Your task to perform on an android device: clear all cookies in the chrome app Image 0: 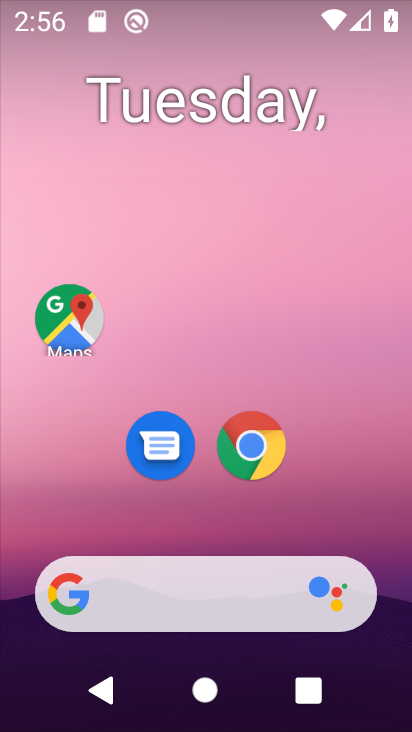
Step 0: click (252, 452)
Your task to perform on an android device: clear all cookies in the chrome app Image 1: 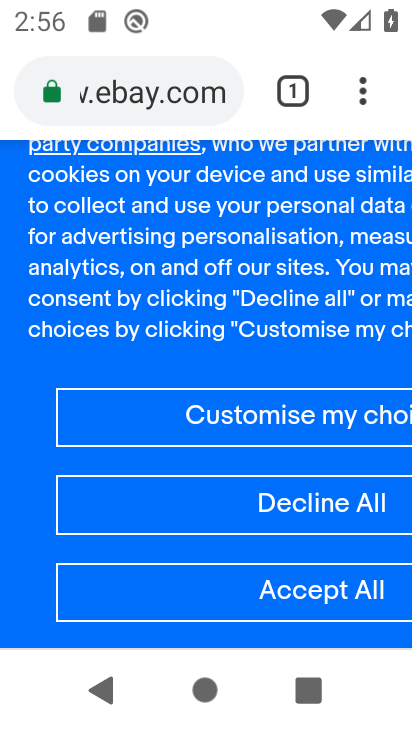
Step 1: click (364, 90)
Your task to perform on an android device: clear all cookies in the chrome app Image 2: 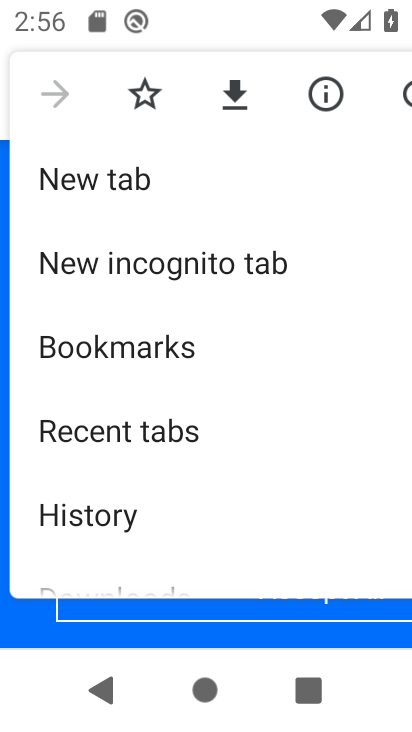
Step 2: drag from (189, 495) to (225, 189)
Your task to perform on an android device: clear all cookies in the chrome app Image 3: 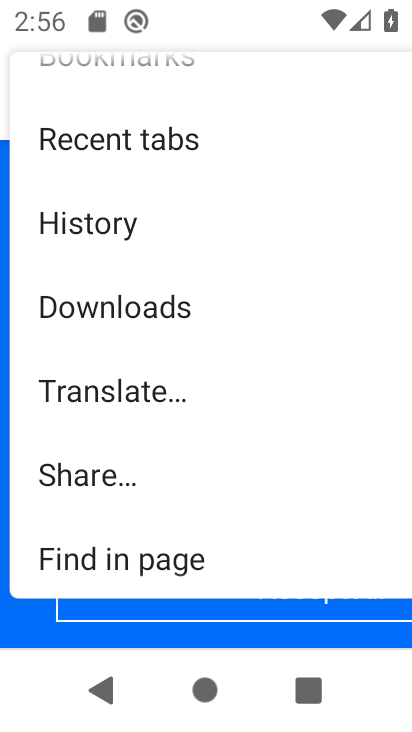
Step 3: drag from (249, 467) to (248, 139)
Your task to perform on an android device: clear all cookies in the chrome app Image 4: 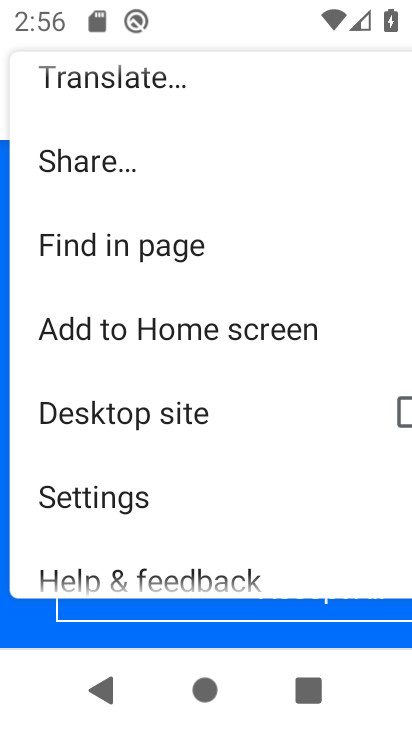
Step 4: drag from (192, 499) to (224, 247)
Your task to perform on an android device: clear all cookies in the chrome app Image 5: 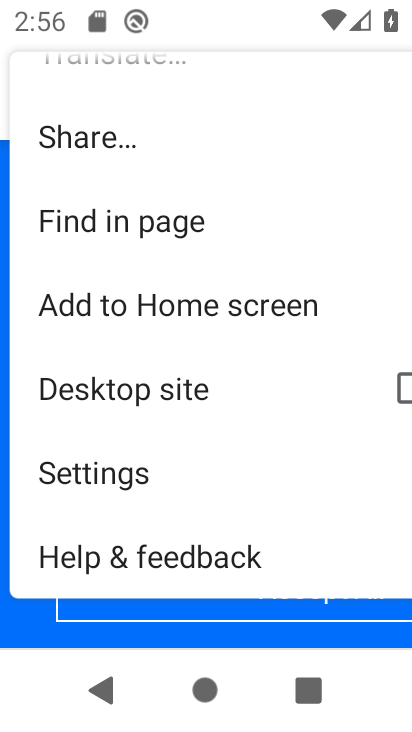
Step 5: click (85, 475)
Your task to perform on an android device: clear all cookies in the chrome app Image 6: 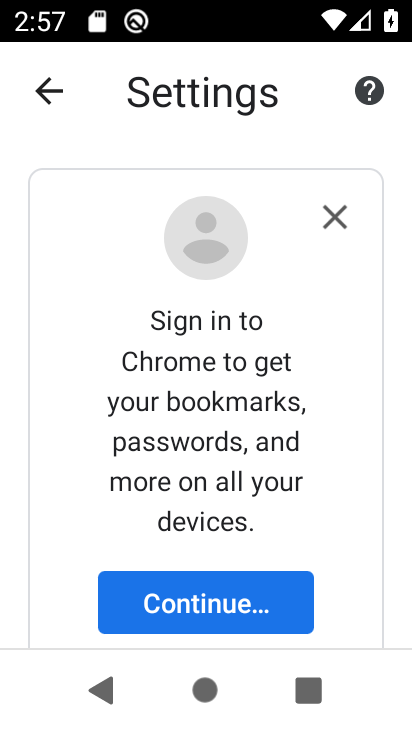
Step 6: drag from (263, 510) to (276, 116)
Your task to perform on an android device: clear all cookies in the chrome app Image 7: 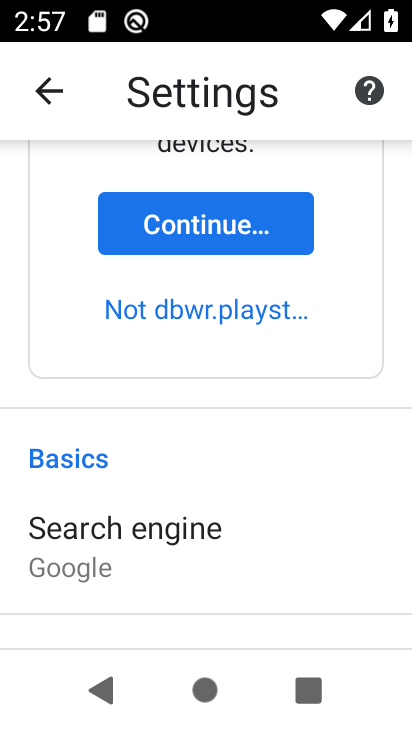
Step 7: drag from (180, 538) to (207, 120)
Your task to perform on an android device: clear all cookies in the chrome app Image 8: 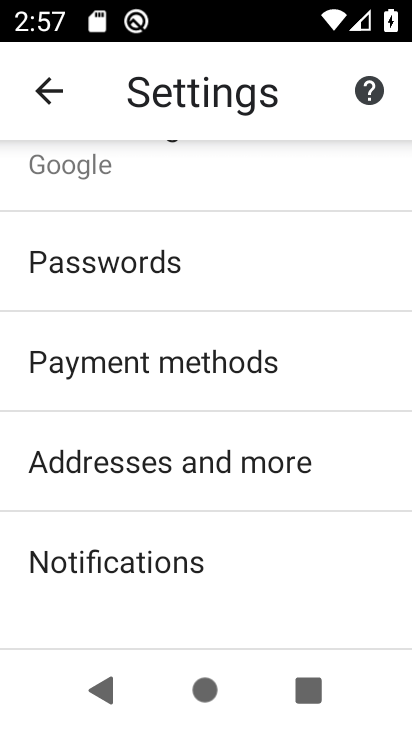
Step 8: drag from (141, 529) to (172, 115)
Your task to perform on an android device: clear all cookies in the chrome app Image 9: 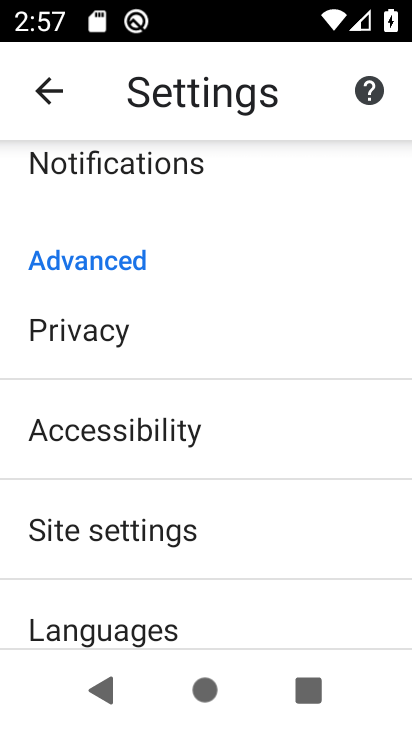
Step 9: click (88, 329)
Your task to perform on an android device: clear all cookies in the chrome app Image 10: 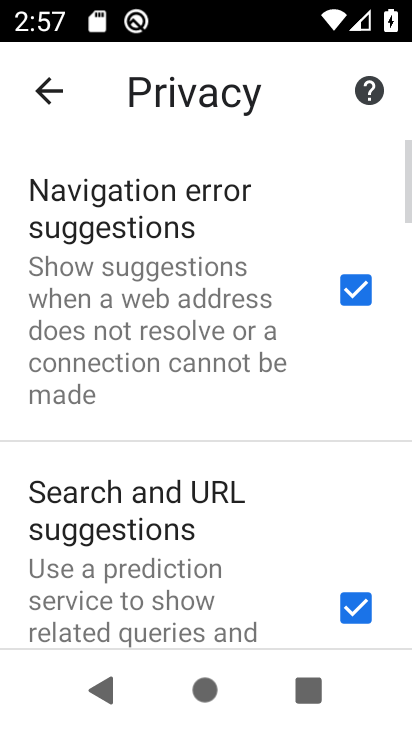
Step 10: drag from (128, 547) to (155, 141)
Your task to perform on an android device: clear all cookies in the chrome app Image 11: 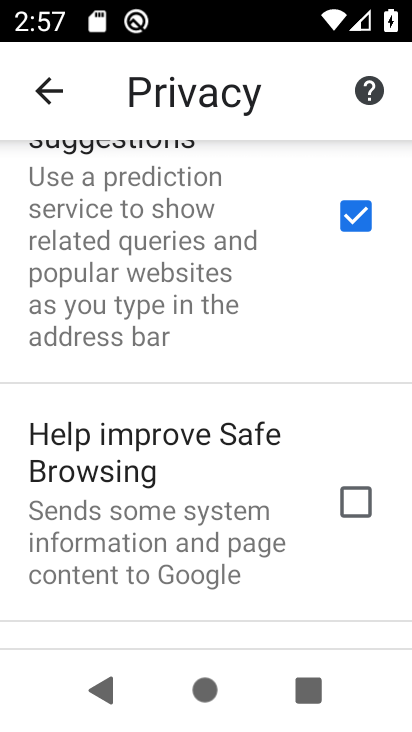
Step 11: drag from (126, 522) to (143, 130)
Your task to perform on an android device: clear all cookies in the chrome app Image 12: 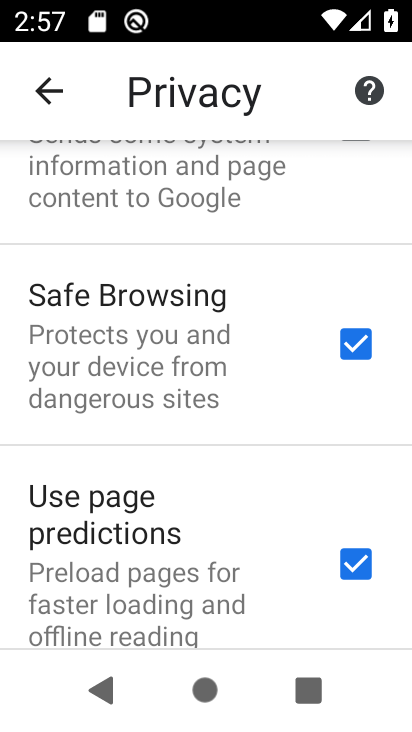
Step 12: drag from (135, 461) to (136, 112)
Your task to perform on an android device: clear all cookies in the chrome app Image 13: 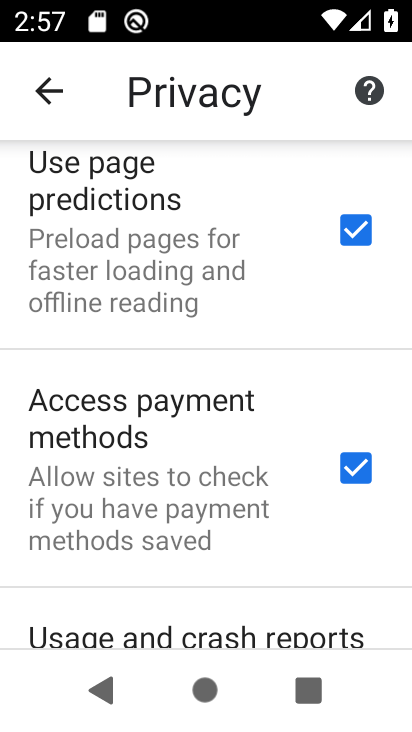
Step 13: drag from (120, 355) to (122, 146)
Your task to perform on an android device: clear all cookies in the chrome app Image 14: 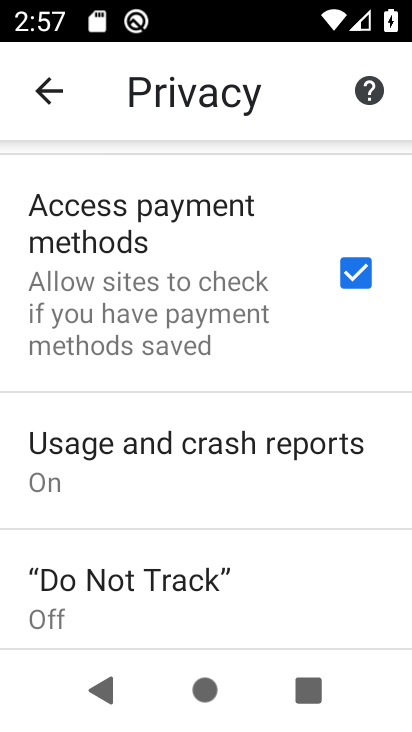
Step 14: drag from (126, 505) to (134, 181)
Your task to perform on an android device: clear all cookies in the chrome app Image 15: 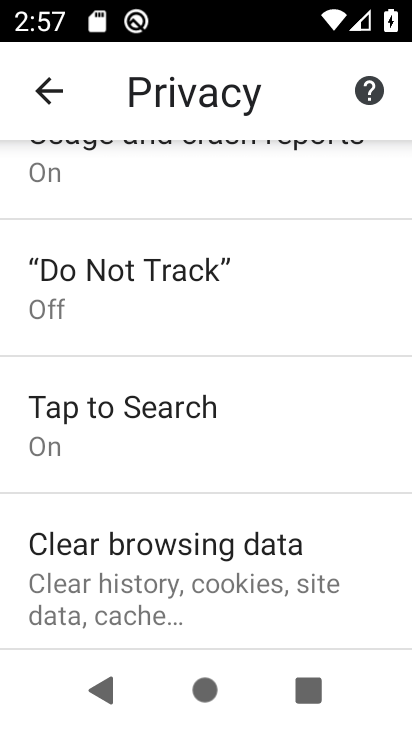
Step 15: click (123, 579)
Your task to perform on an android device: clear all cookies in the chrome app Image 16: 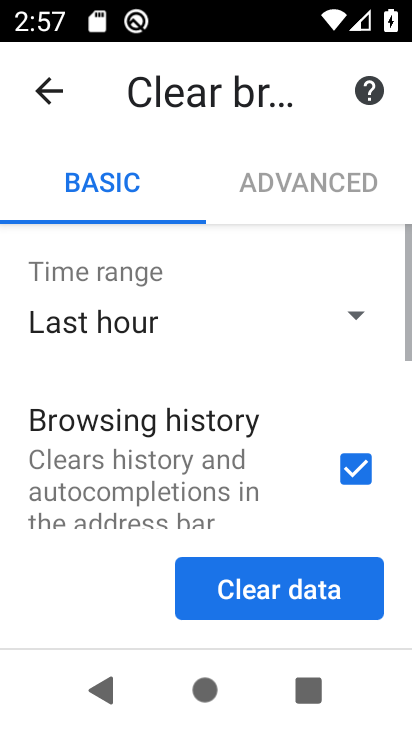
Step 16: drag from (190, 367) to (203, 135)
Your task to perform on an android device: clear all cookies in the chrome app Image 17: 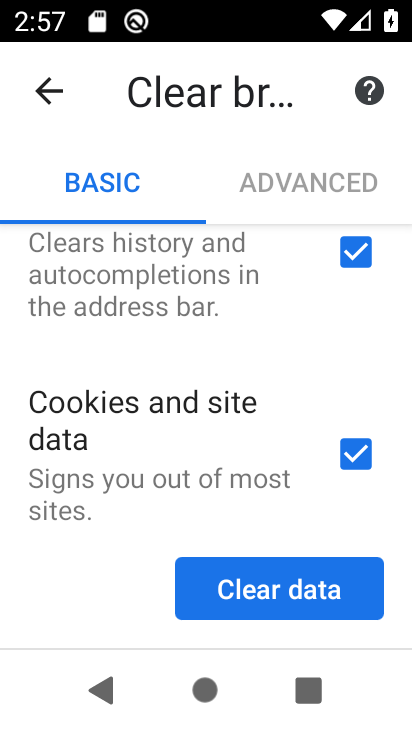
Step 17: click (361, 248)
Your task to perform on an android device: clear all cookies in the chrome app Image 18: 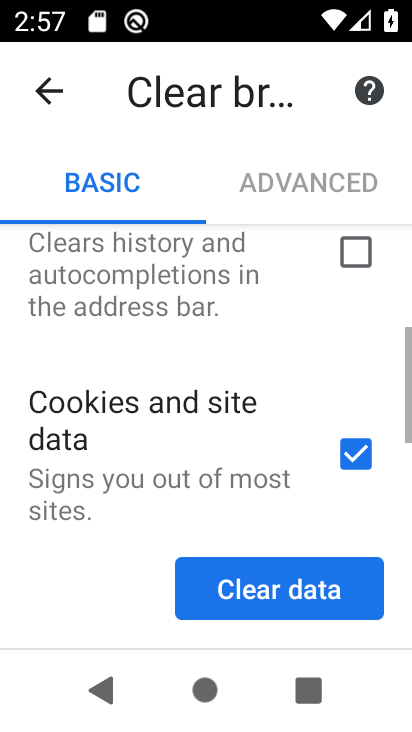
Step 18: drag from (46, 472) to (88, 181)
Your task to perform on an android device: clear all cookies in the chrome app Image 19: 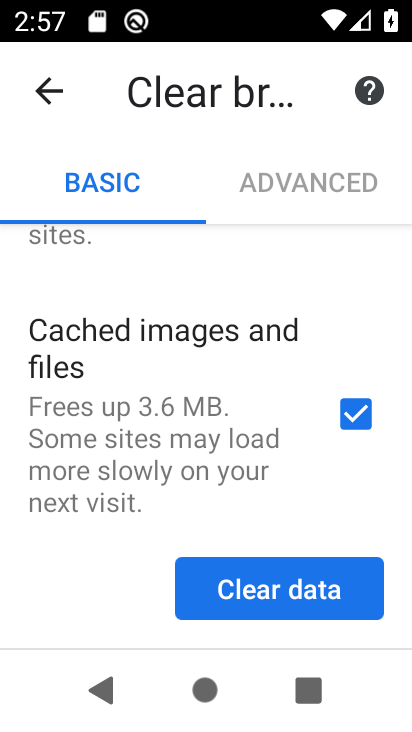
Step 19: click (354, 418)
Your task to perform on an android device: clear all cookies in the chrome app Image 20: 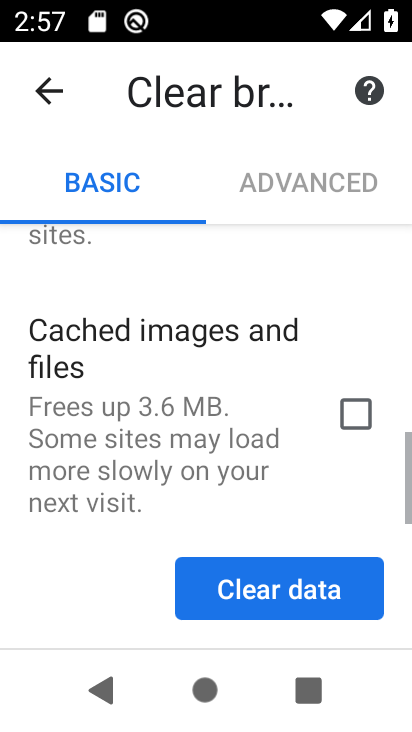
Step 20: drag from (96, 324) to (103, 548)
Your task to perform on an android device: clear all cookies in the chrome app Image 21: 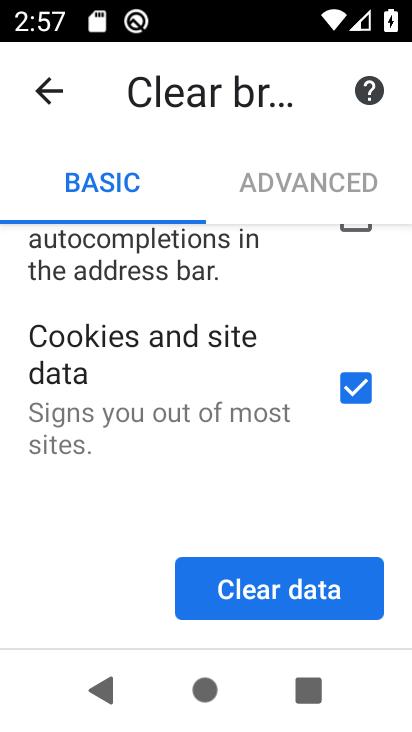
Step 21: drag from (78, 471) to (100, 176)
Your task to perform on an android device: clear all cookies in the chrome app Image 22: 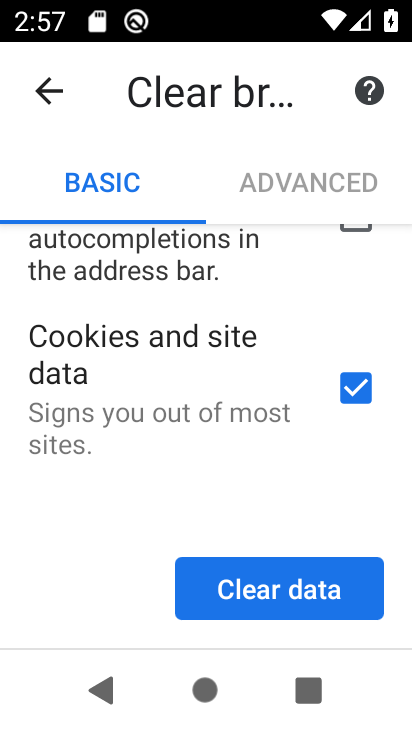
Step 22: click (298, 589)
Your task to perform on an android device: clear all cookies in the chrome app Image 23: 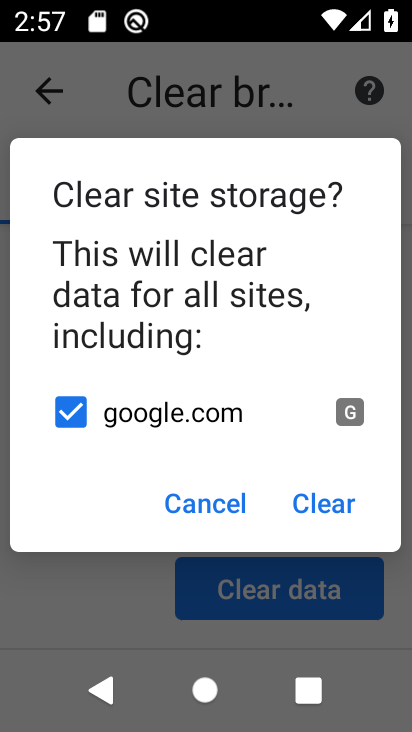
Step 23: click (333, 509)
Your task to perform on an android device: clear all cookies in the chrome app Image 24: 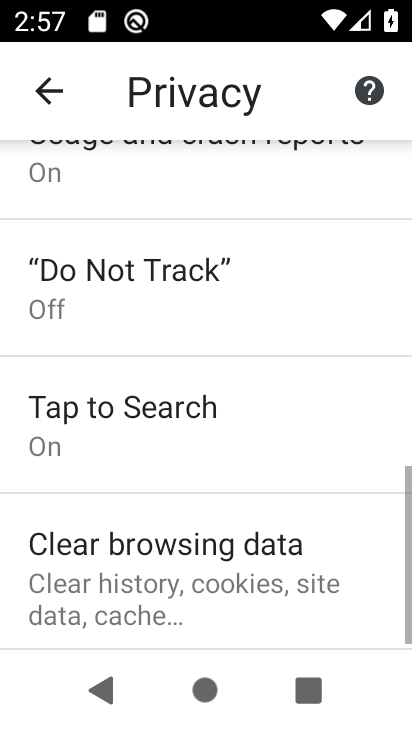
Step 24: task complete